Your task to perform on an android device: Open Youtube and go to the subscriptions tab Image 0: 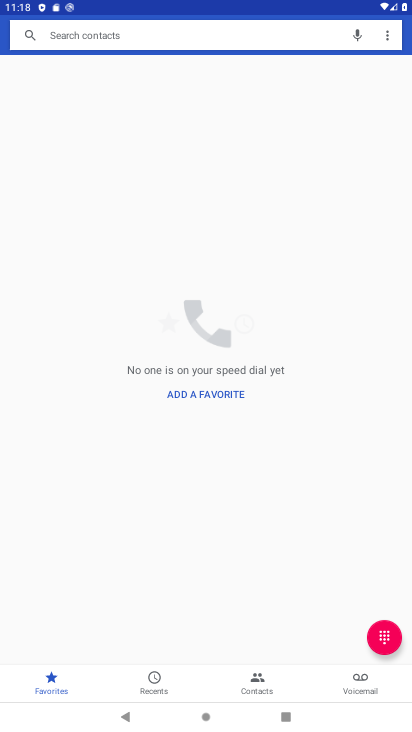
Step 0: press home button
Your task to perform on an android device: Open Youtube and go to the subscriptions tab Image 1: 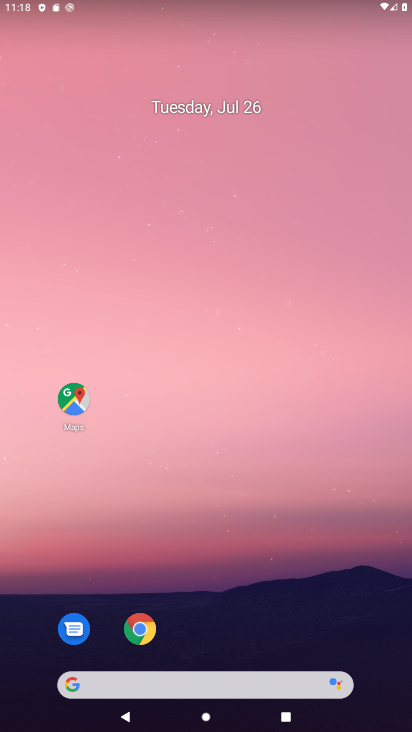
Step 1: drag from (225, 725) to (224, 130)
Your task to perform on an android device: Open Youtube and go to the subscriptions tab Image 2: 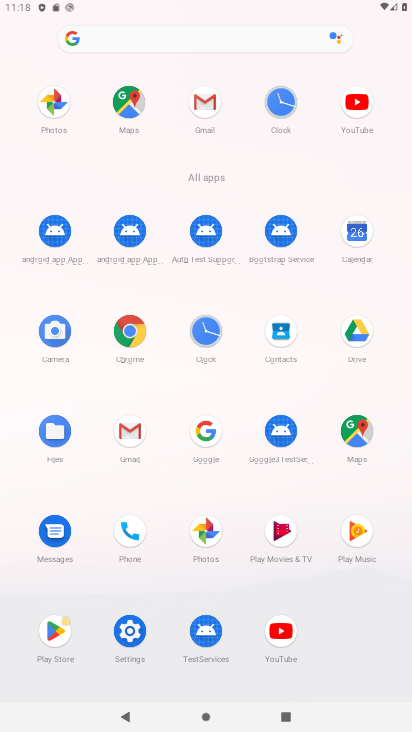
Step 2: click (287, 631)
Your task to perform on an android device: Open Youtube and go to the subscriptions tab Image 3: 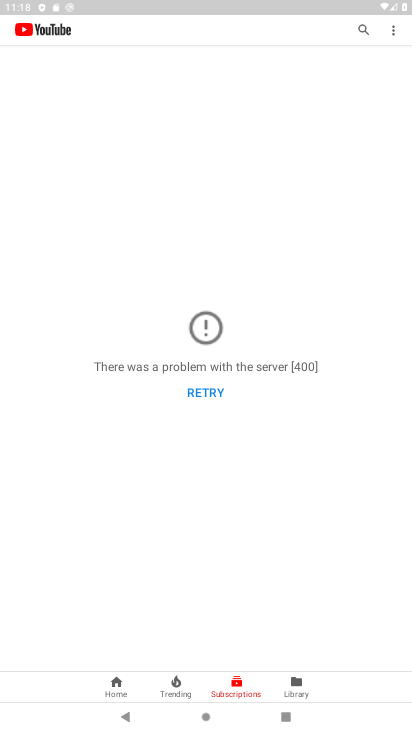
Step 3: task complete